Your task to perform on an android device: Open Google Chrome and open the bookmarks view Image 0: 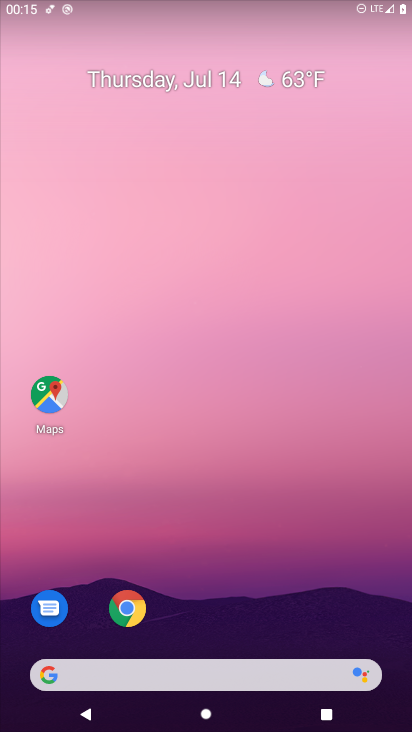
Step 0: drag from (252, 555) to (185, 5)
Your task to perform on an android device: Open Google Chrome and open the bookmarks view Image 1: 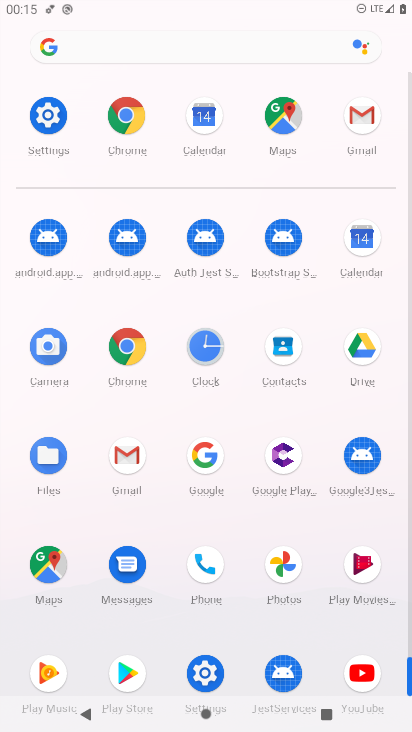
Step 1: click (121, 119)
Your task to perform on an android device: Open Google Chrome and open the bookmarks view Image 2: 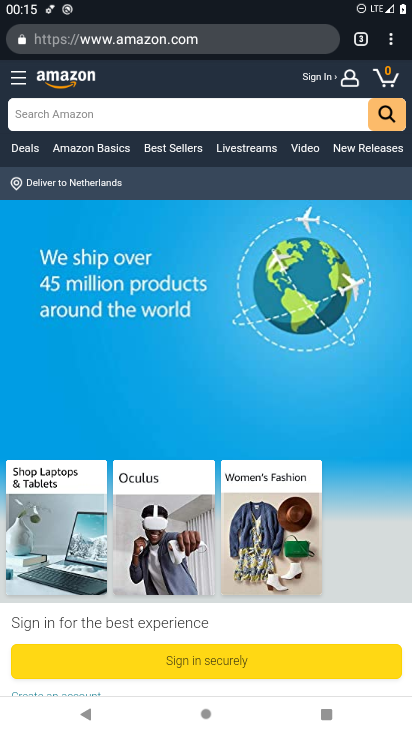
Step 2: drag from (391, 46) to (267, 163)
Your task to perform on an android device: Open Google Chrome and open the bookmarks view Image 3: 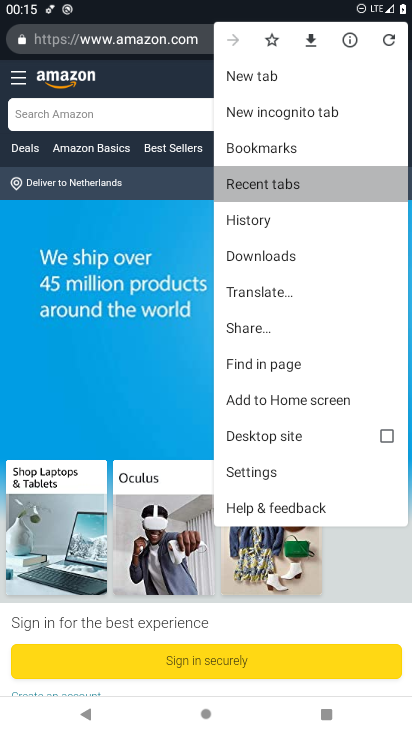
Step 3: click (236, 154)
Your task to perform on an android device: Open Google Chrome and open the bookmarks view Image 4: 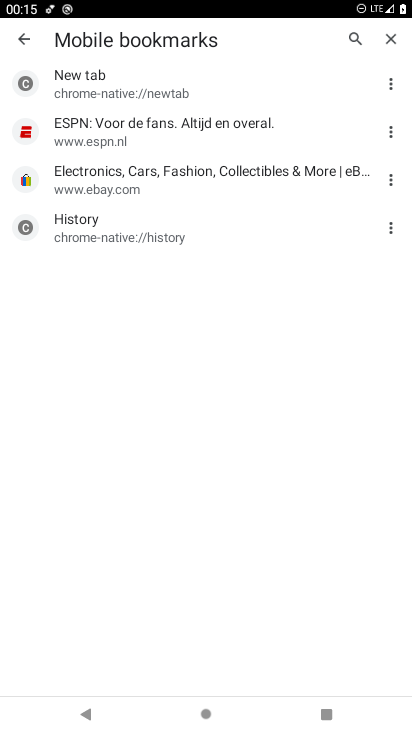
Step 4: task complete